Your task to perform on an android device: Search for seafood restaurants on Google Maps Image 0: 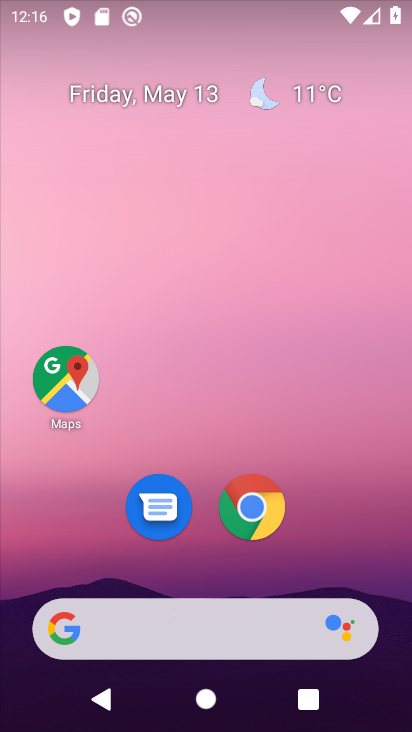
Step 0: click (63, 350)
Your task to perform on an android device: Search for seafood restaurants on Google Maps Image 1: 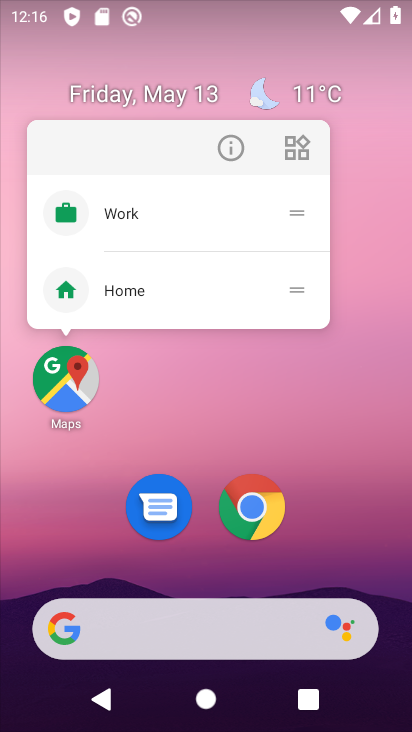
Step 1: click (75, 391)
Your task to perform on an android device: Search for seafood restaurants on Google Maps Image 2: 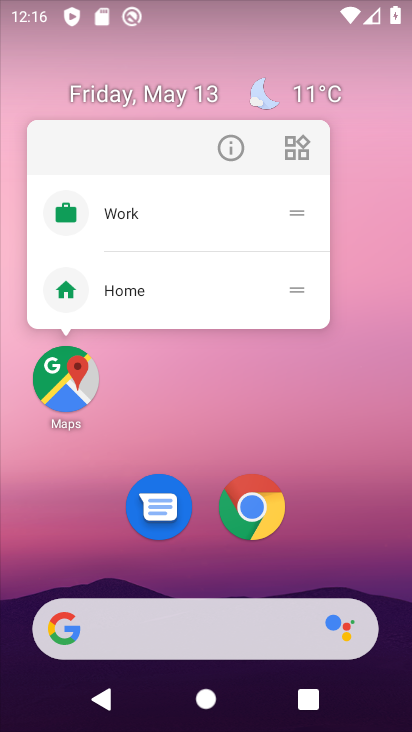
Step 2: click (73, 391)
Your task to perform on an android device: Search for seafood restaurants on Google Maps Image 3: 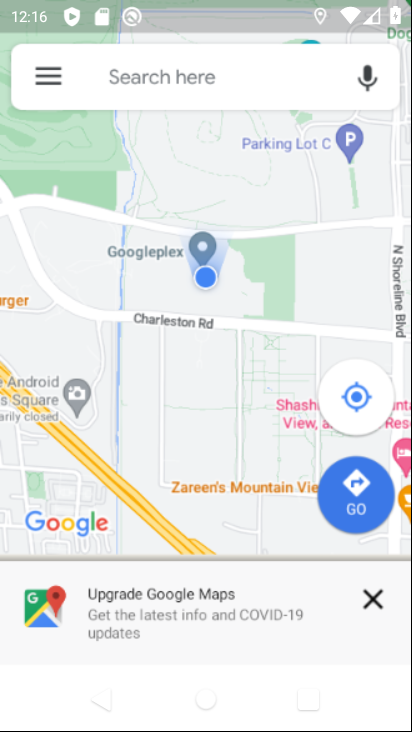
Step 3: click (232, 102)
Your task to perform on an android device: Search for seafood restaurants on Google Maps Image 4: 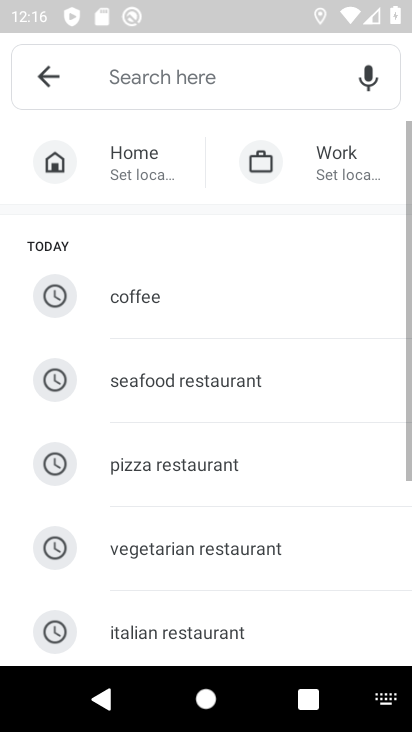
Step 4: click (143, 379)
Your task to perform on an android device: Search for seafood restaurants on Google Maps Image 5: 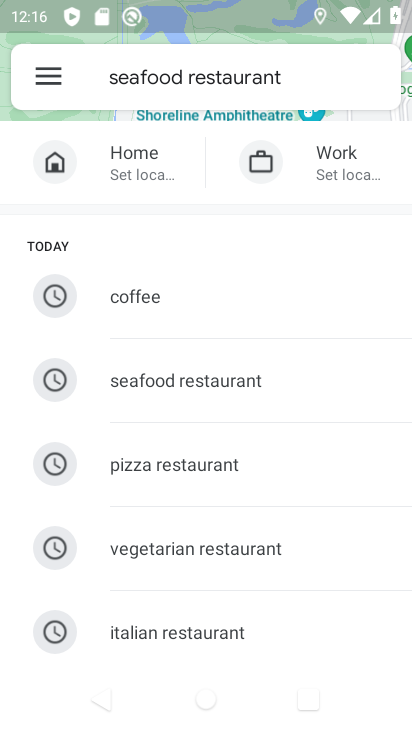
Step 5: task complete